Your task to perform on an android device: Open privacy settings Image 0: 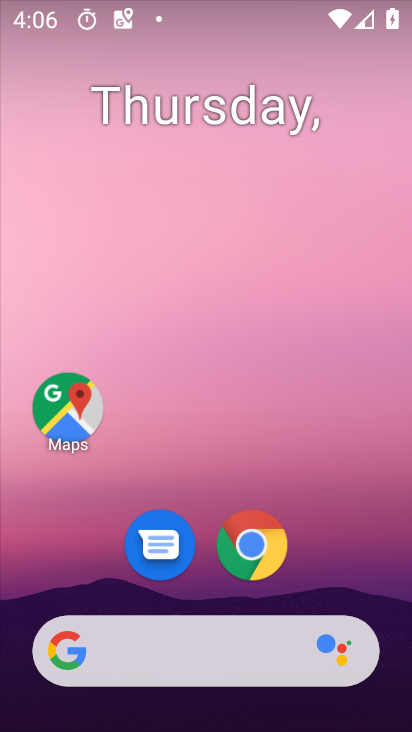
Step 0: drag from (200, 725) to (191, 85)
Your task to perform on an android device: Open privacy settings Image 1: 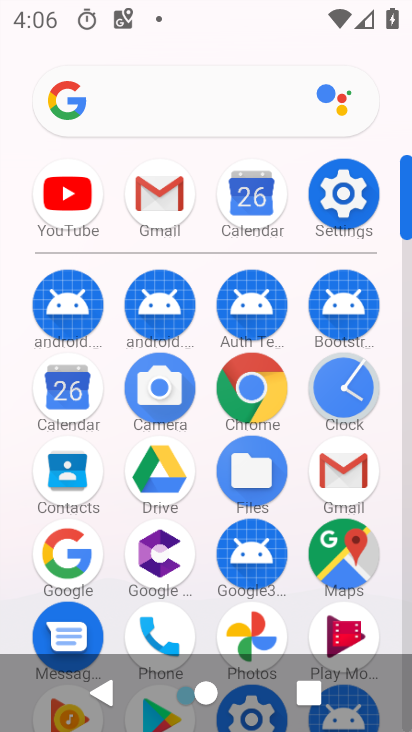
Step 1: click (352, 190)
Your task to perform on an android device: Open privacy settings Image 2: 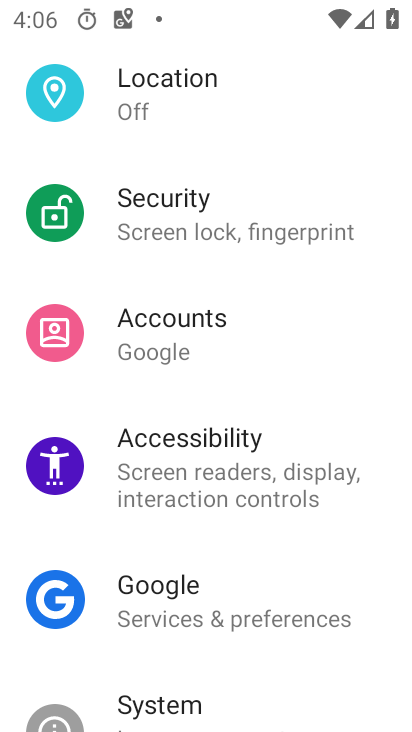
Step 2: drag from (200, 156) to (229, 559)
Your task to perform on an android device: Open privacy settings Image 3: 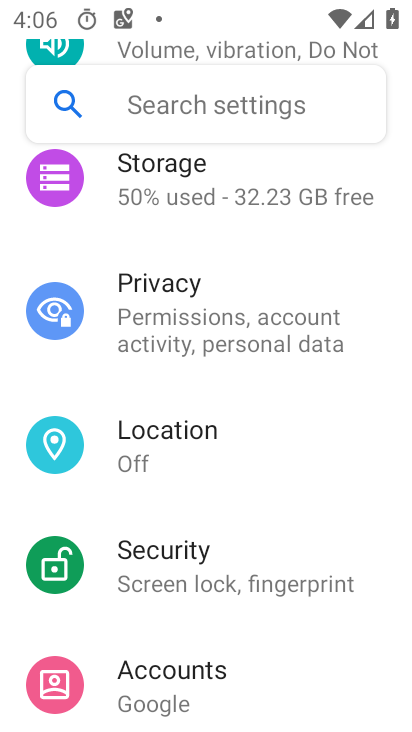
Step 3: click (174, 302)
Your task to perform on an android device: Open privacy settings Image 4: 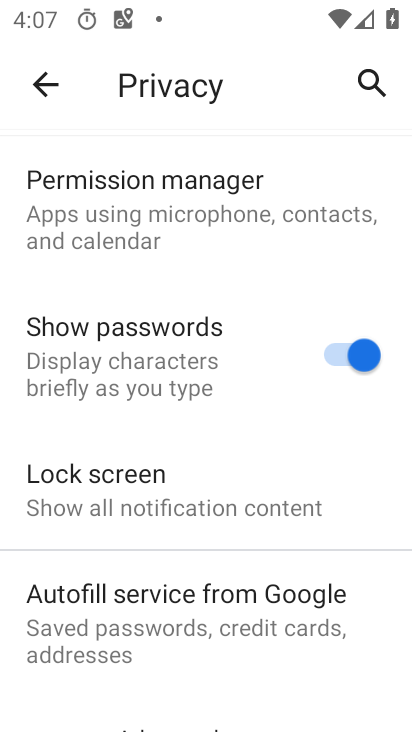
Step 4: task complete